Your task to perform on an android device: Is it going to rain tomorrow? Image 0: 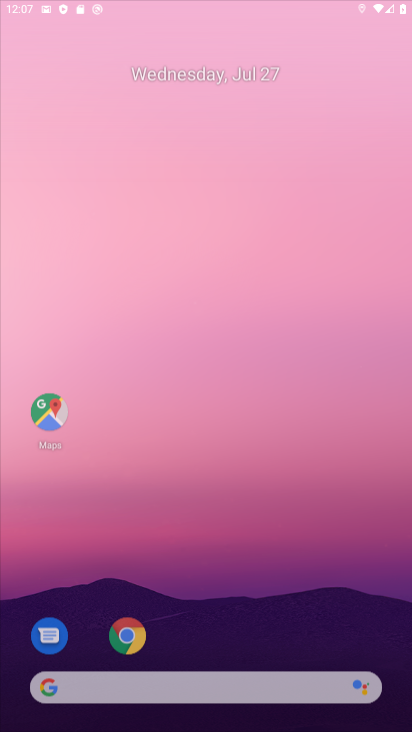
Step 0: drag from (163, 298) to (164, 95)
Your task to perform on an android device: Is it going to rain tomorrow? Image 1: 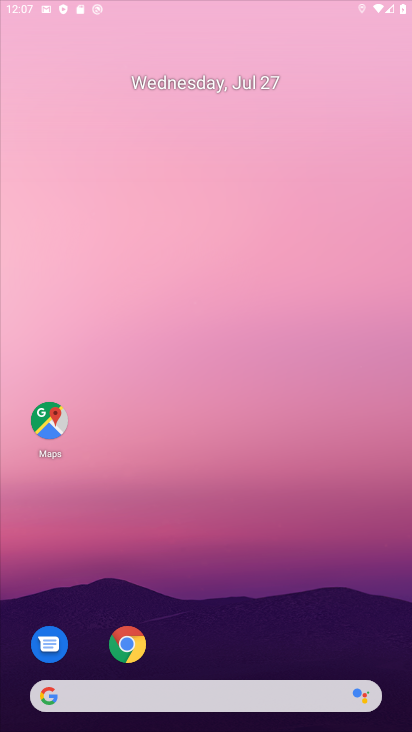
Step 1: drag from (151, 370) to (154, 123)
Your task to perform on an android device: Is it going to rain tomorrow? Image 2: 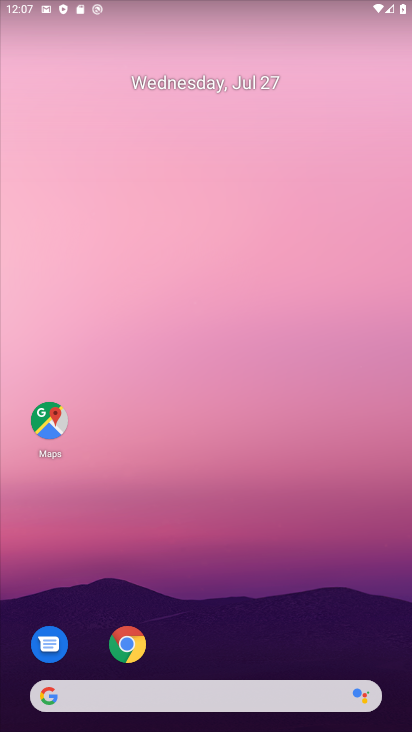
Step 2: drag from (120, 400) to (138, 145)
Your task to perform on an android device: Is it going to rain tomorrow? Image 3: 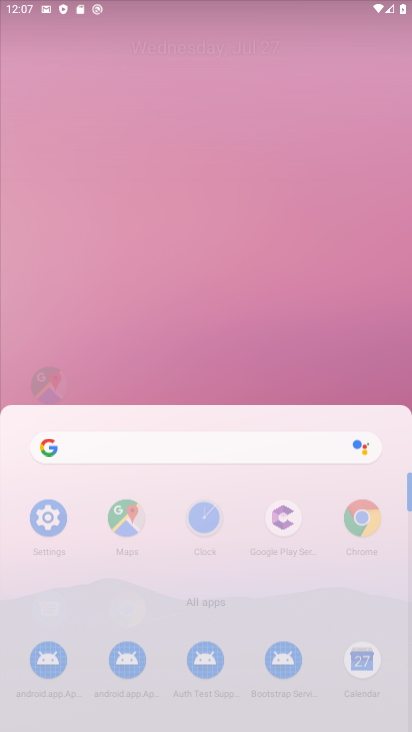
Step 3: drag from (176, 503) to (189, 200)
Your task to perform on an android device: Is it going to rain tomorrow? Image 4: 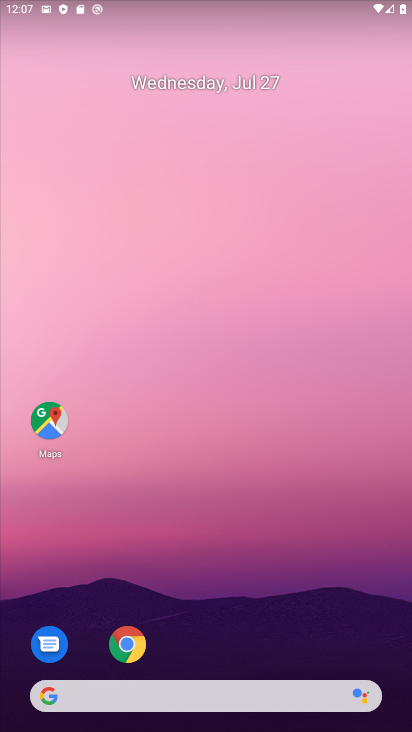
Step 4: drag from (197, 615) to (164, 275)
Your task to perform on an android device: Is it going to rain tomorrow? Image 5: 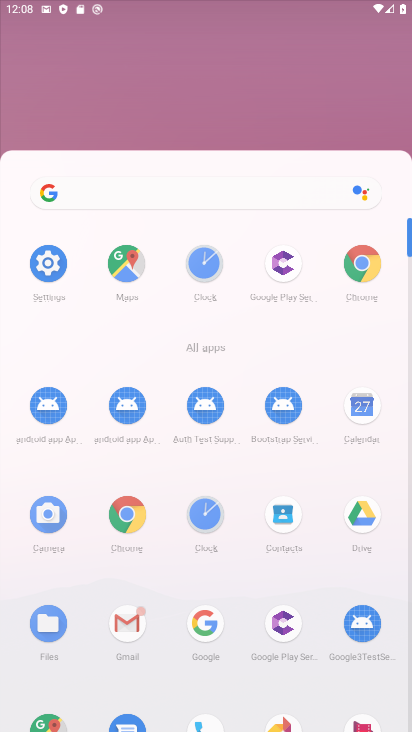
Step 5: drag from (189, 490) to (220, 133)
Your task to perform on an android device: Is it going to rain tomorrow? Image 6: 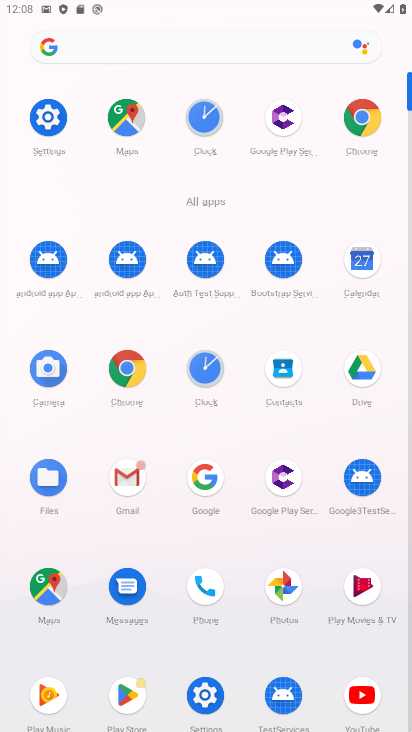
Step 6: drag from (221, 419) to (211, 220)
Your task to perform on an android device: Is it going to rain tomorrow? Image 7: 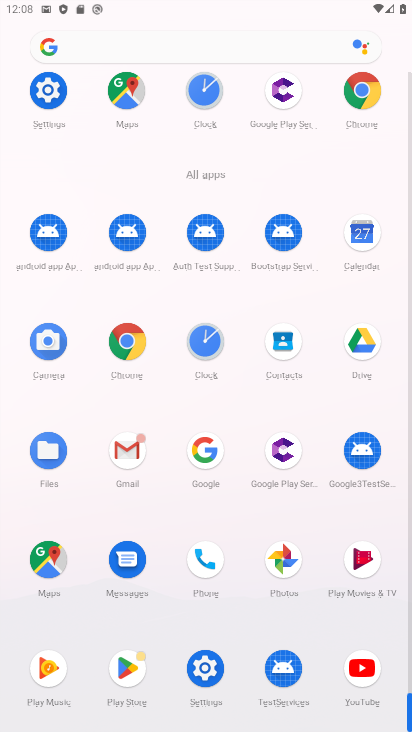
Step 7: click (361, 101)
Your task to perform on an android device: Is it going to rain tomorrow? Image 8: 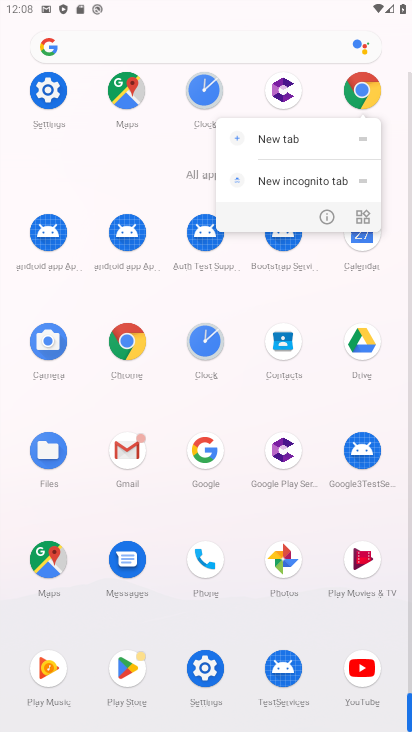
Step 8: click (357, 100)
Your task to perform on an android device: Is it going to rain tomorrow? Image 9: 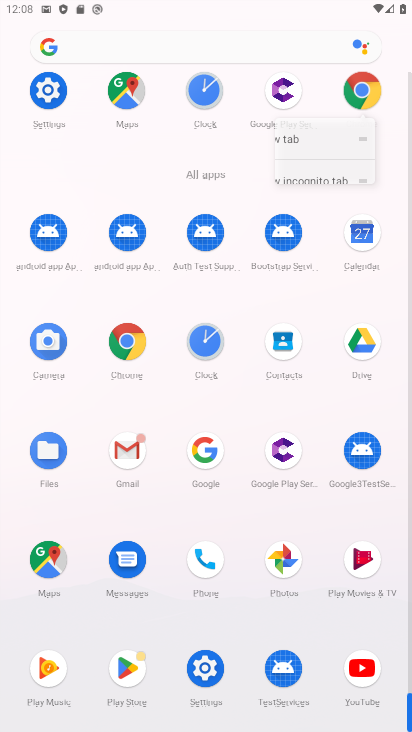
Step 9: click (357, 100)
Your task to perform on an android device: Is it going to rain tomorrow? Image 10: 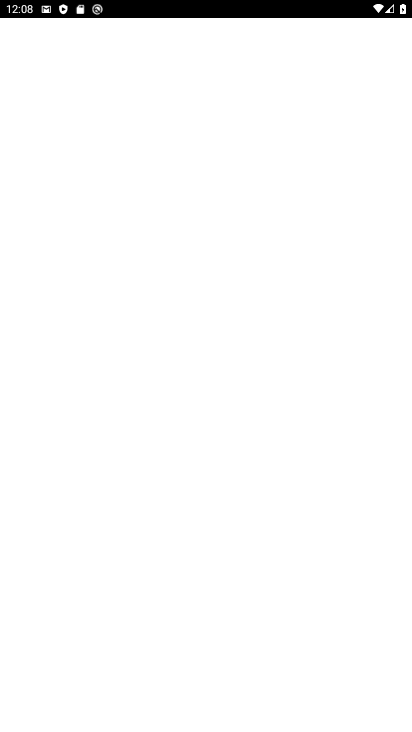
Step 10: click (361, 101)
Your task to perform on an android device: Is it going to rain tomorrow? Image 11: 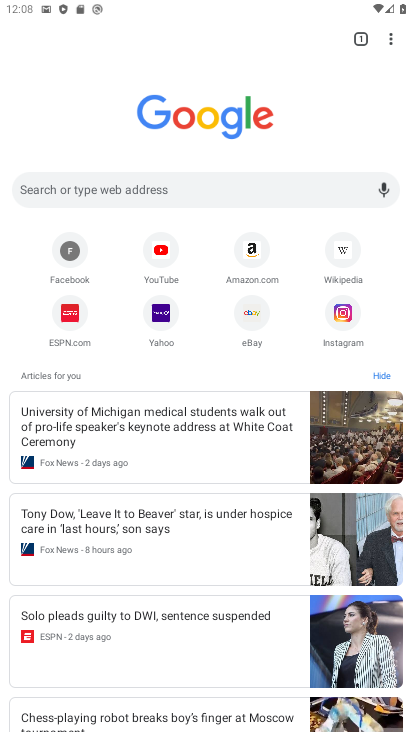
Step 11: click (65, 175)
Your task to perform on an android device: Is it going to rain tomorrow? Image 12: 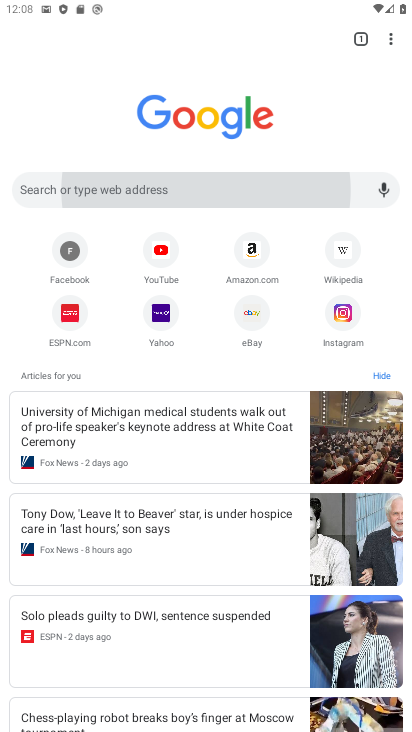
Step 12: click (65, 175)
Your task to perform on an android device: Is it going to rain tomorrow? Image 13: 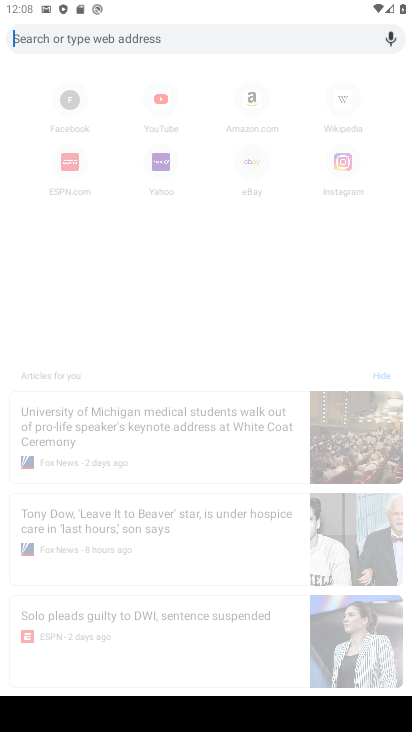
Step 13: type "is iy going to rain tomorrow?"
Your task to perform on an android device: Is it going to rain tomorrow? Image 14: 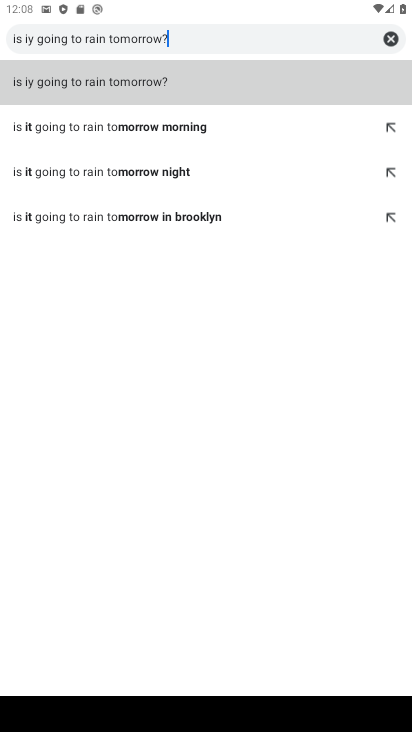
Step 14: click (98, 84)
Your task to perform on an android device: Is it going to rain tomorrow? Image 15: 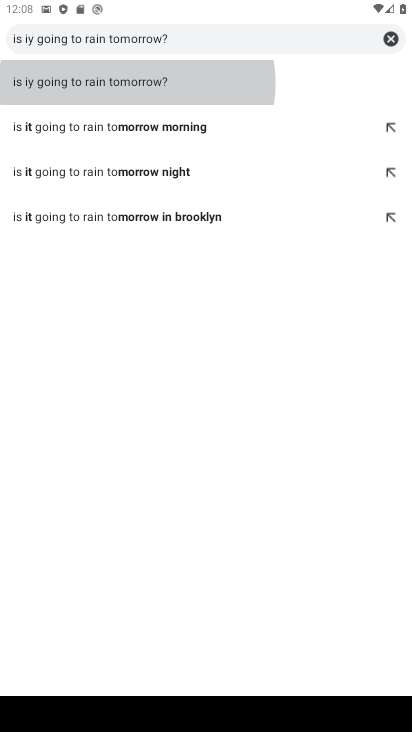
Step 15: click (99, 83)
Your task to perform on an android device: Is it going to rain tomorrow? Image 16: 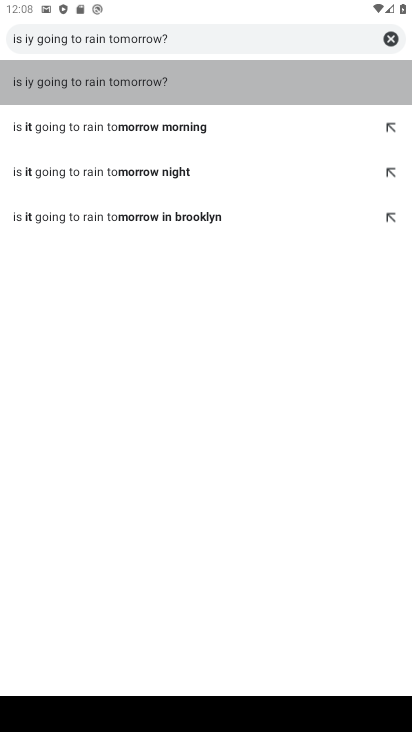
Step 16: click (99, 83)
Your task to perform on an android device: Is it going to rain tomorrow? Image 17: 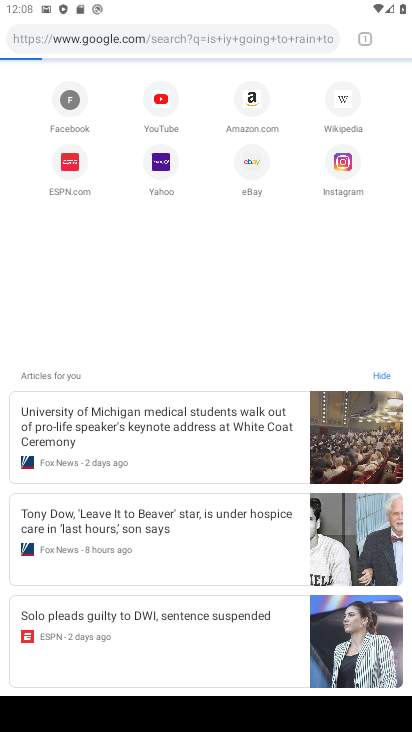
Step 17: click (99, 81)
Your task to perform on an android device: Is it going to rain tomorrow? Image 18: 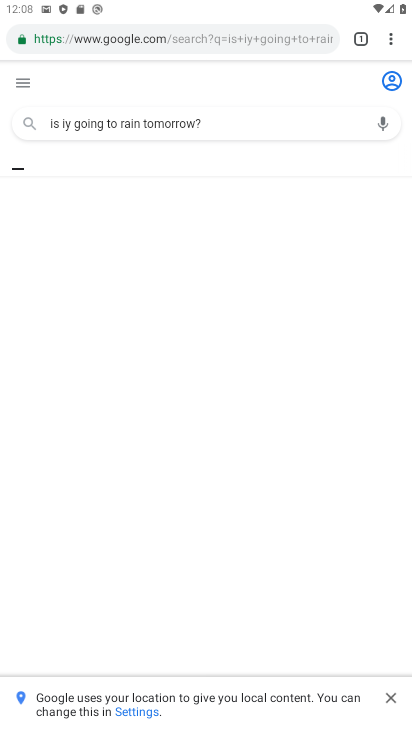
Step 18: task complete